Your task to perform on an android device: turn on location history Image 0: 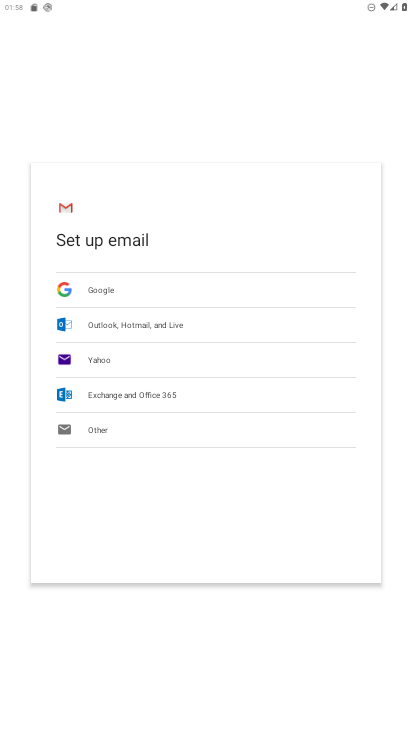
Step 0: press home button
Your task to perform on an android device: turn on location history Image 1: 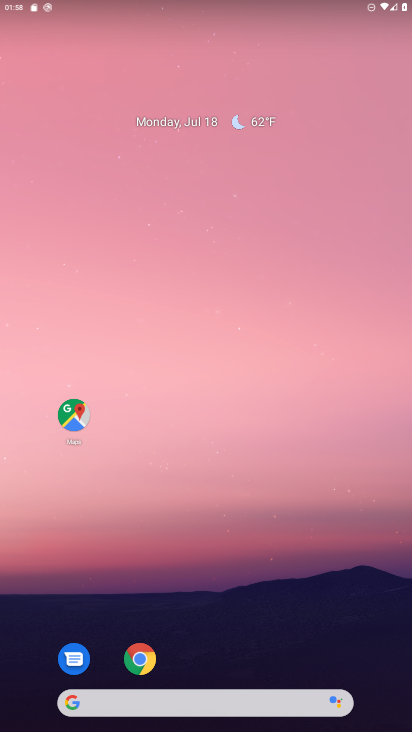
Step 1: drag from (278, 620) to (269, 108)
Your task to perform on an android device: turn on location history Image 2: 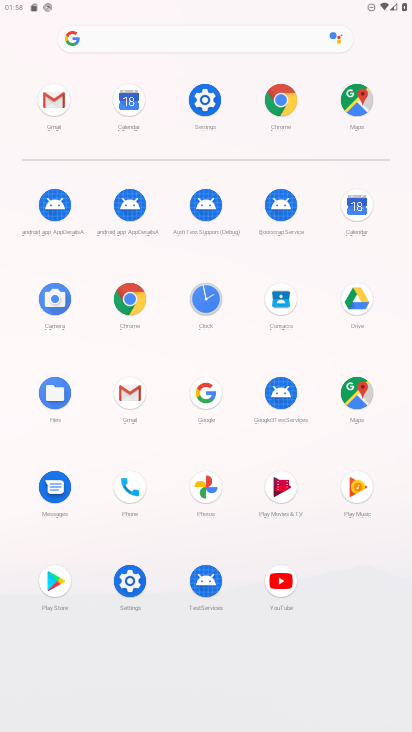
Step 2: click (211, 98)
Your task to perform on an android device: turn on location history Image 3: 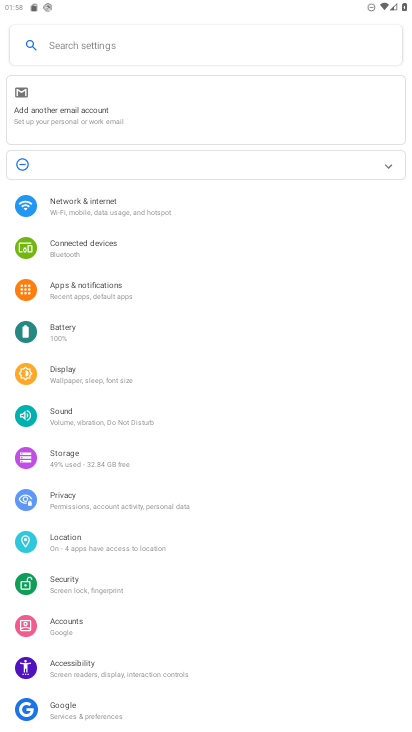
Step 3: click (98, 542)
Your task to perform on an android device: turn on location history Image 4: 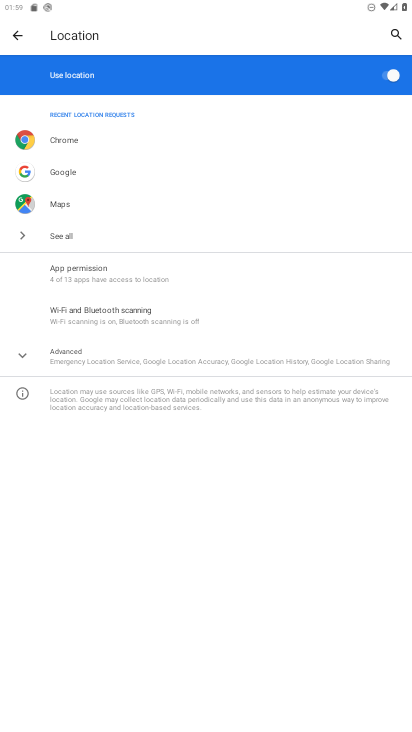
Step 4: click (78, 355)
Your task to perform on an android device: turn on location history Image 5: 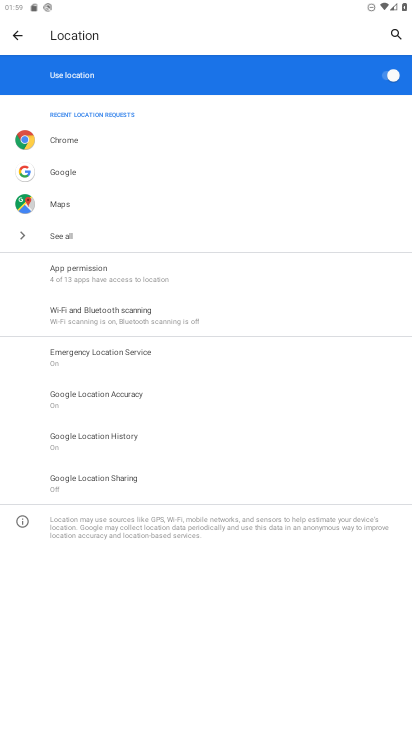
Step 5: click (99, 437)
Your task to perform on an android device: turn on location history Image 6: 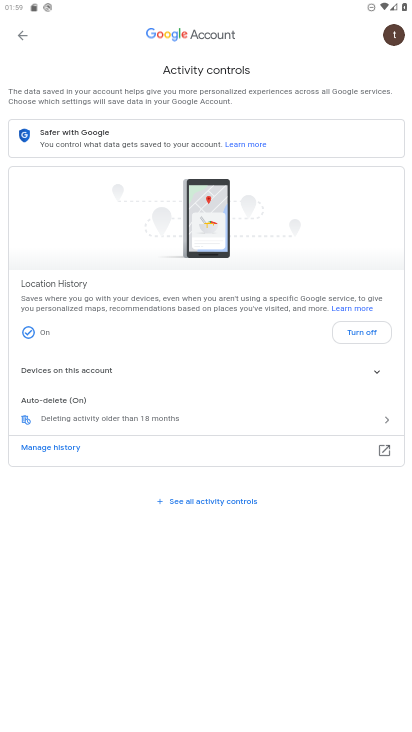
Step 6: task complete